Your task to perform on an android device: turn on the 24-hour format for clock Image 0: 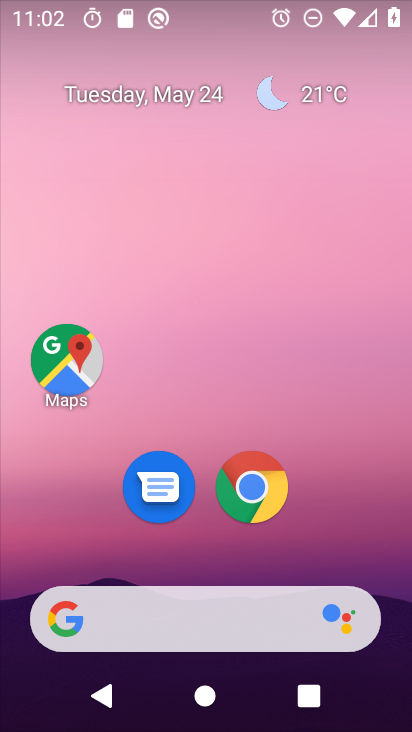
Step 0: drag from (344, 580) to (348, 6)
Your task to perform on an android device: turn on the 24-hour format for clock Image 1: 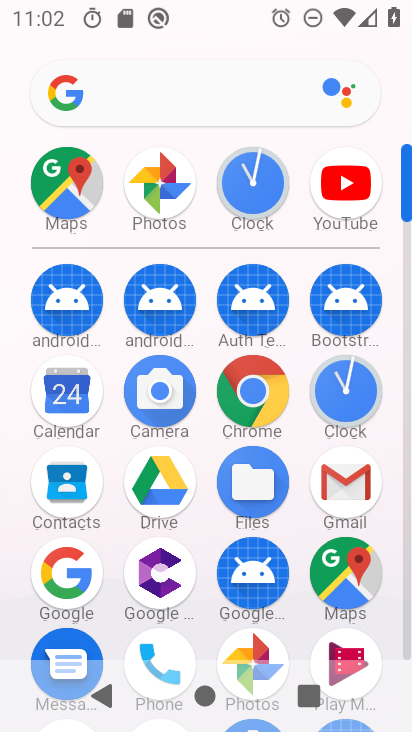
Step 1: click (248, 185)
Your task to perform on an android device: turn on the 24-hour format for clock Image 2: 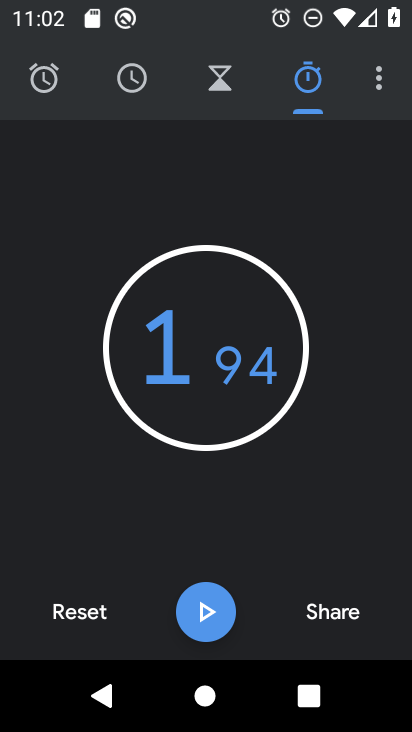
Step 2: click (381, 87)
Your task to perform on an android device: turn on the 24-hour format for clock Image 3: 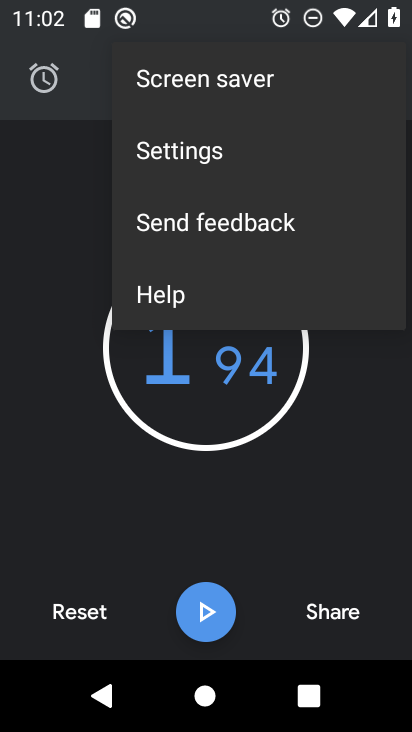
Step 3: click (194, 161)
Your task to perform on an android device: turn on the 24-hour format for clock Image 4: 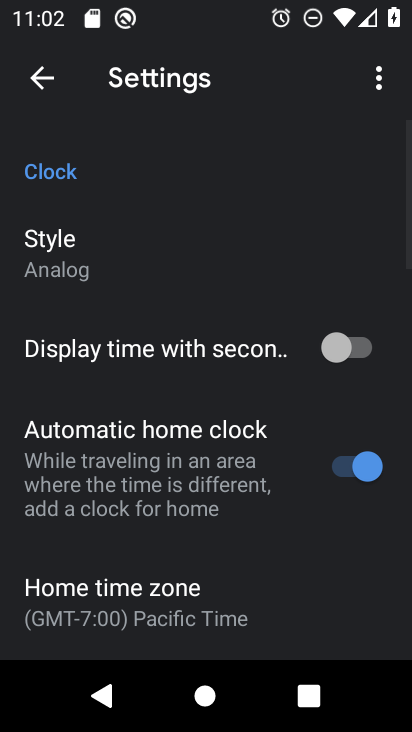
Step 4: drag from (204, 501) to (204, 162)
Your task to perform on an android device: turn on the 24-hour format for clock Image 5: 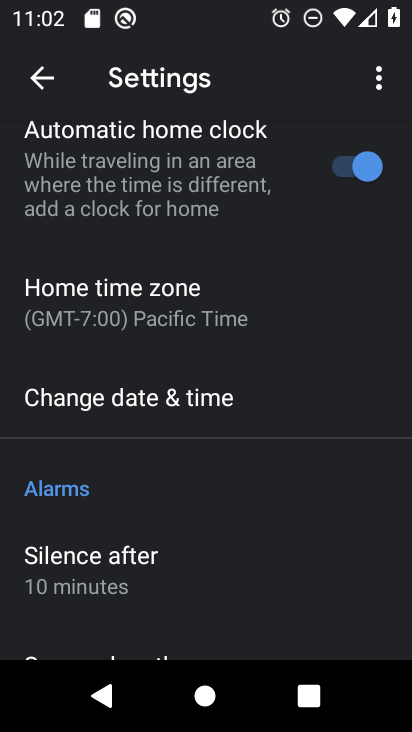
Step 5: click (102, 402)
Your task to perform on an android device: turn on the 24-hour format for clock Image 6: 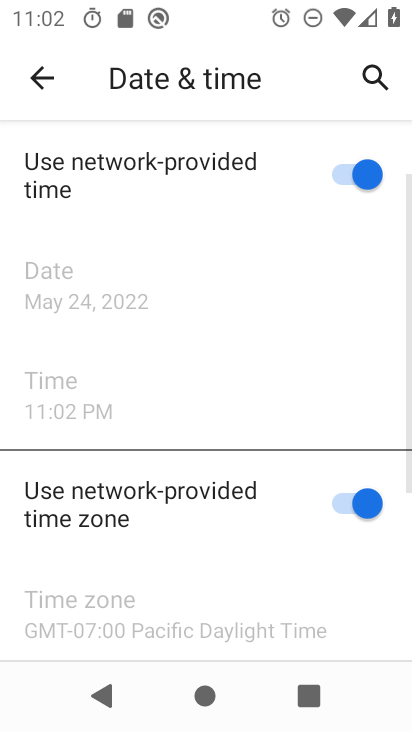
Step 6: drag from (150, 529) to (122, 78)
Your task to perform on an android device: turn on the 24-hour format for clock Image 7: 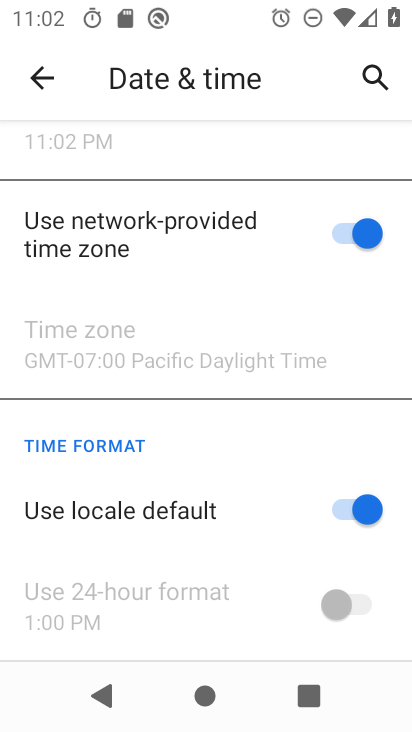
Step 7: click (376, 504)
Your task to perform on an android device: turn on the 24-hour format for clock Image 8: 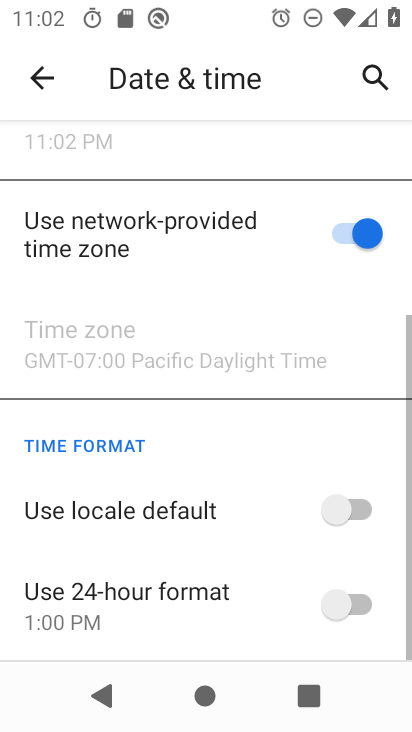
Step 8: click (334, 612)
Your task to perform on an android device: turn on the 24-hour format for clock Image 9: 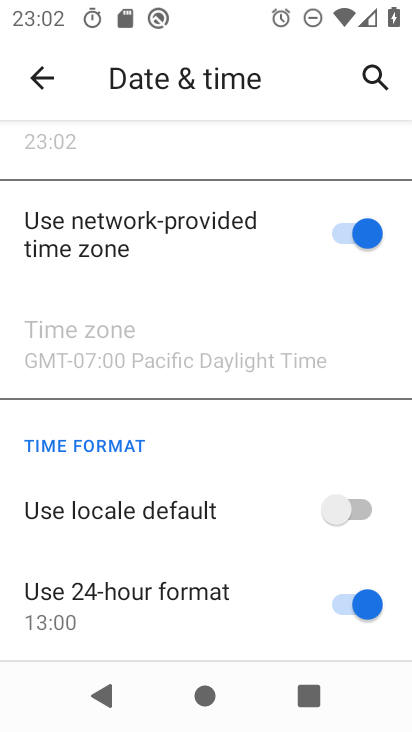
Step 9: task complete